Your task to perform on an android device: turn off improve location accuracy Image 0: 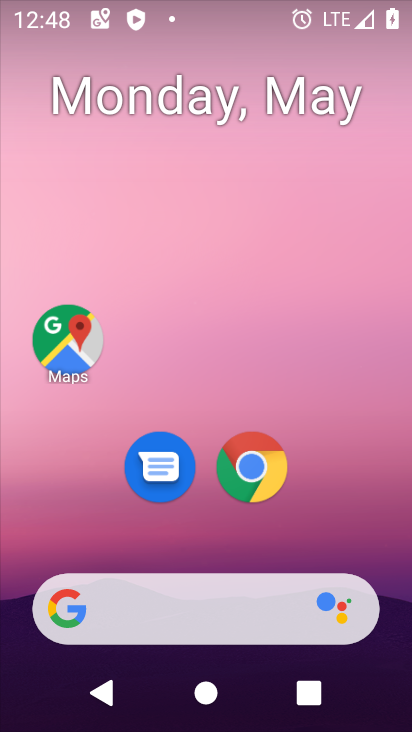
Step 0: drag from (354, 561) to (361, 14)
Your task to perform on an android device: turn off improve location accuracy Image 1: 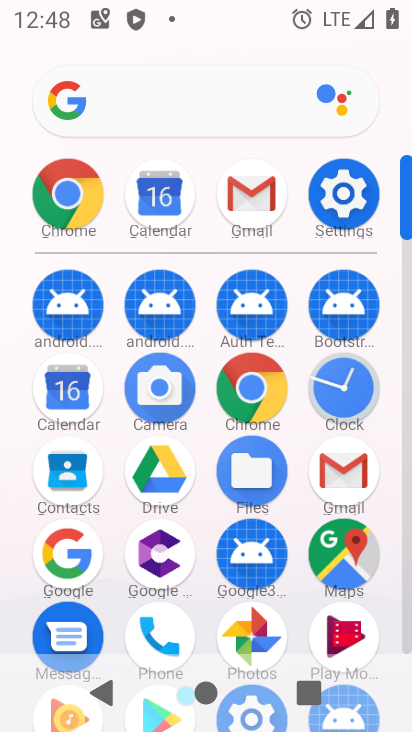
Step 1: click (343, 190)
Your task to perform on an android device: turn off improve location accuracy Image 2: 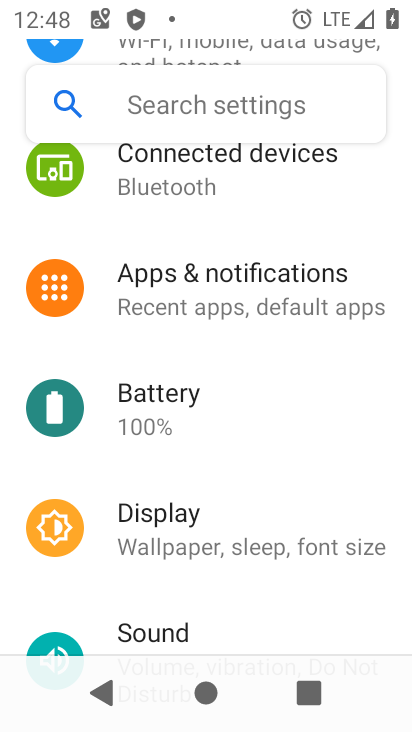
Step 2: drag from (279, 213) to (284, 510)
Your task to perform on an android device: turn off improve location accuracy Image 3: 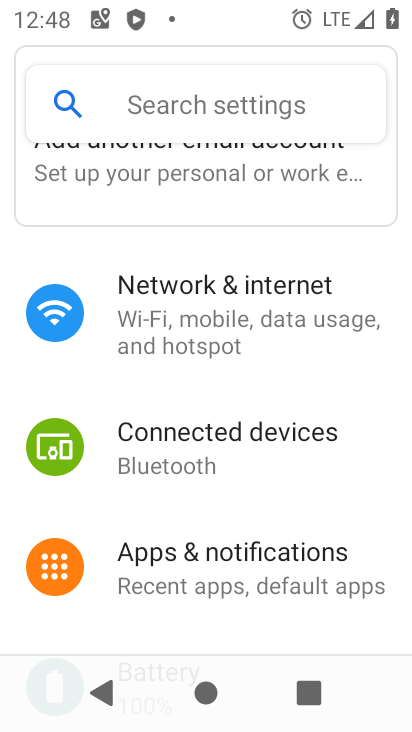
Step 3: drag from (283, 472) to (278, 77)
Your task to perform on an android device: turn off improve location accuracy Image 4: 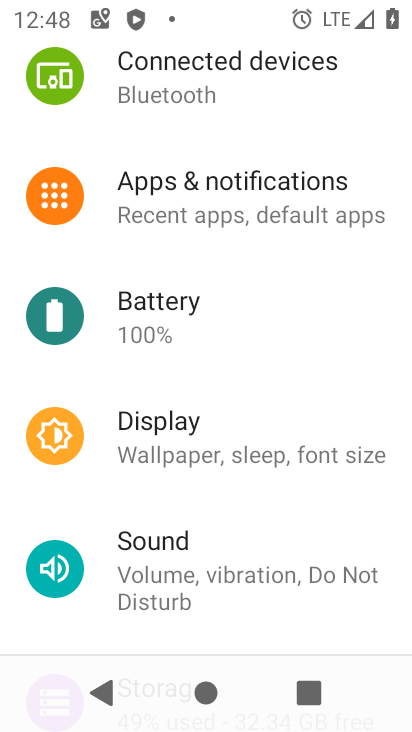
Step 4: drag from (253, 514) to (266, 161)
Your task to perform on an android device: turn off improve location accuracy Image 5: 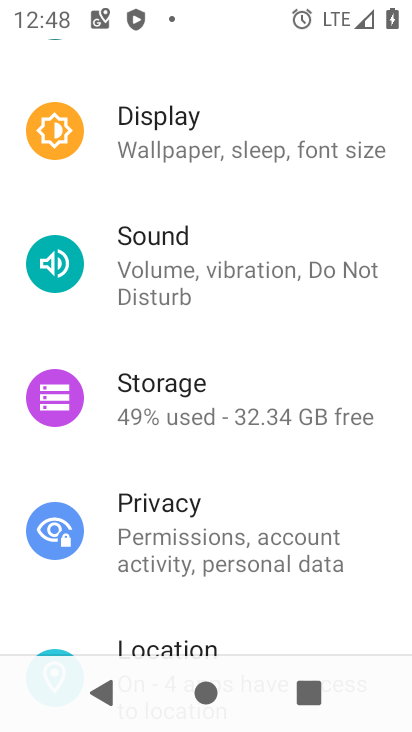
Step 5: drag from (287, 425) to (287, 152)
Your task to perform on an android device: turn off improve location accuracy Image 6: 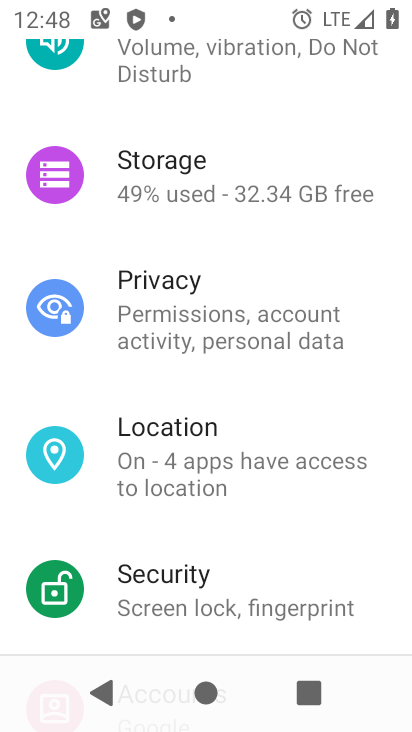
Step 6: click (180, 432)
Your task to perform on an android device: turn off improve location accuracy Image 7: 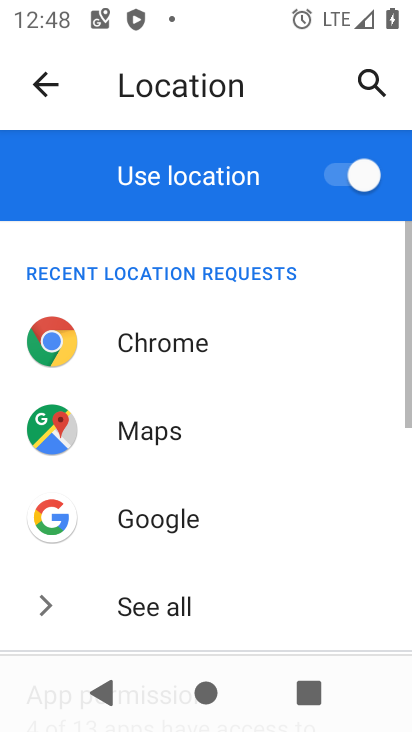
Step 7: drag from (265, 515) to (263, 76)
Your task to perform on an android device: turn off improve location accuracy Image 8: 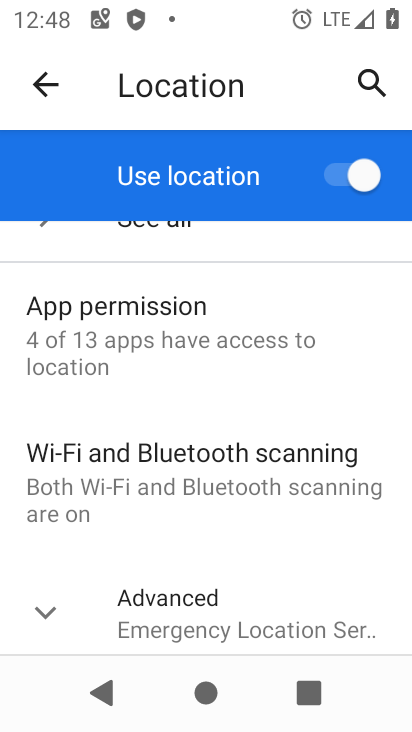
Step 8: click (46, 620)
Your task to perform on an android device: turn off improve location accuracy Image 9: 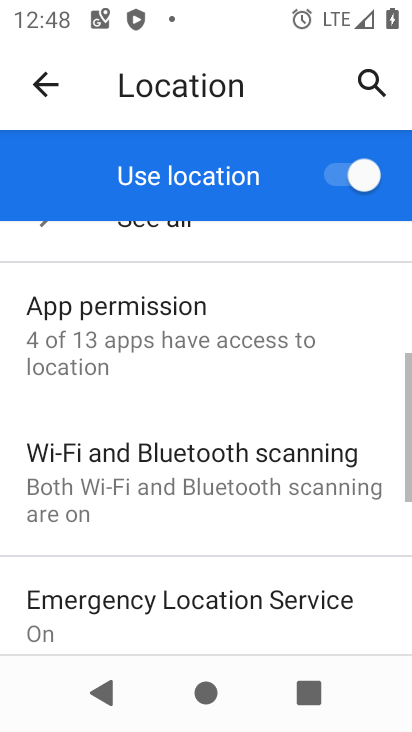
Step 9: drag from (210, 579) to (217, 229)
Your task to perform on an android device: turn off improve location accuracy Image 10: 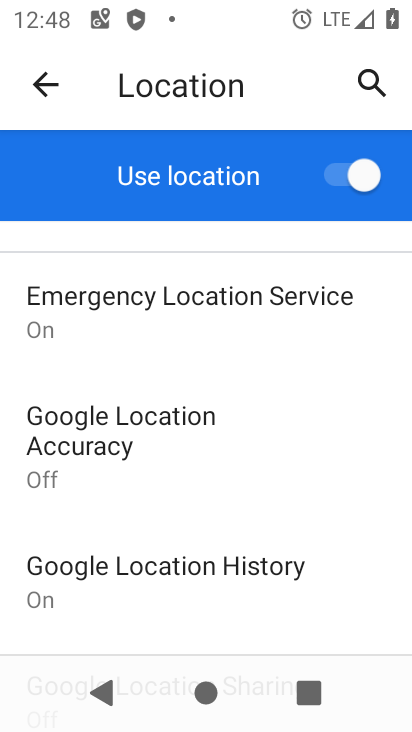
Step 10: click (86, 439)
Your task to perform on an android device: turn off improve location accuracy Image 11: 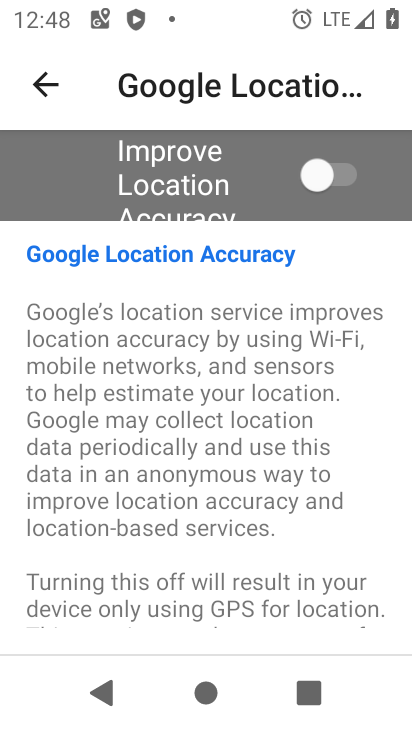
Step 11: task complete